Your task to perform on an android device: Open Google Chrome Image 0: 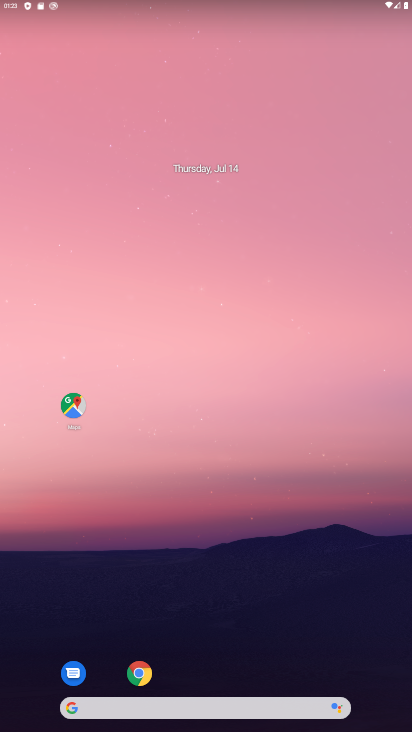
Step 0: click (146, 663)
Your task to perform on an android device: Open Google Chrome Image 1: 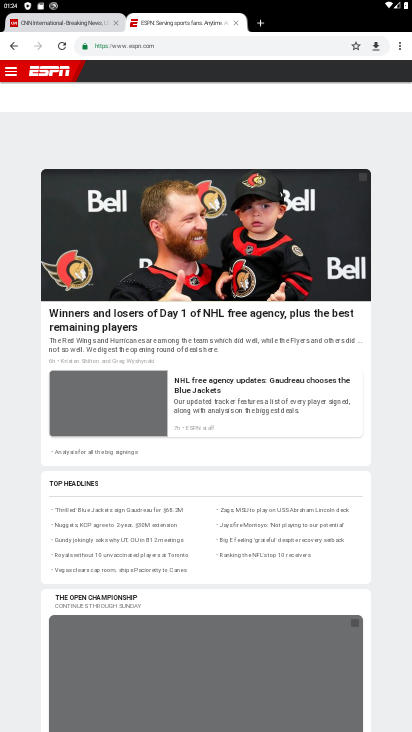
Step 1: click (400, 46)
Your task to perform on an android device: Open Google Chrome Image 2: 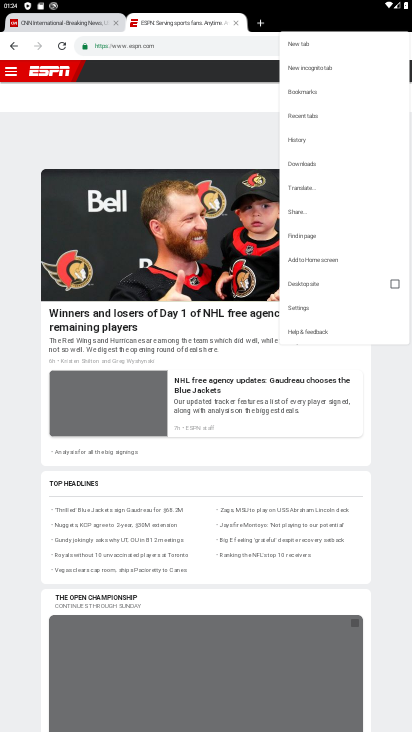
Step 2: task complete